Your task to perform on an android device: turn off improve location accuracy Image 0: 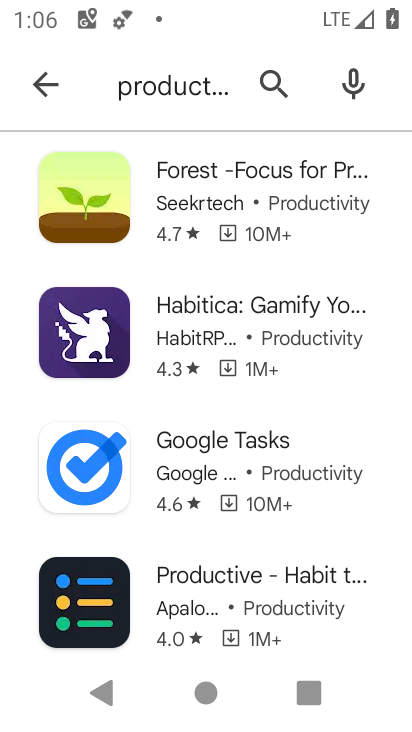
Step 0: press home button
Your task to perform on an android device: turn off improve location accuracy Image 1: 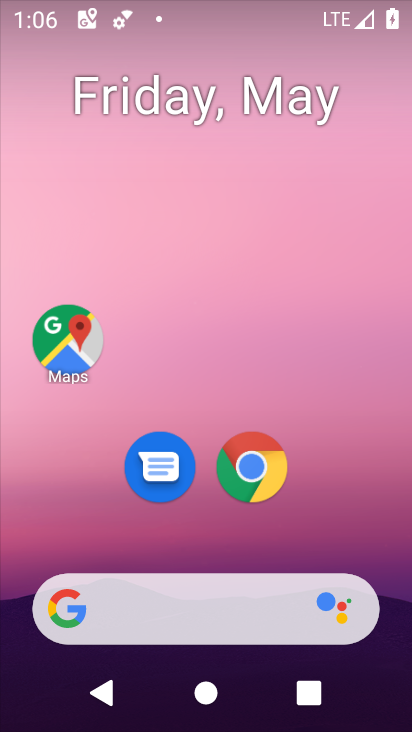
Step 1: drag from (334, 414) to (298, 97)
Your task to perform on an android device: turn off improve location accuracy Image 2: 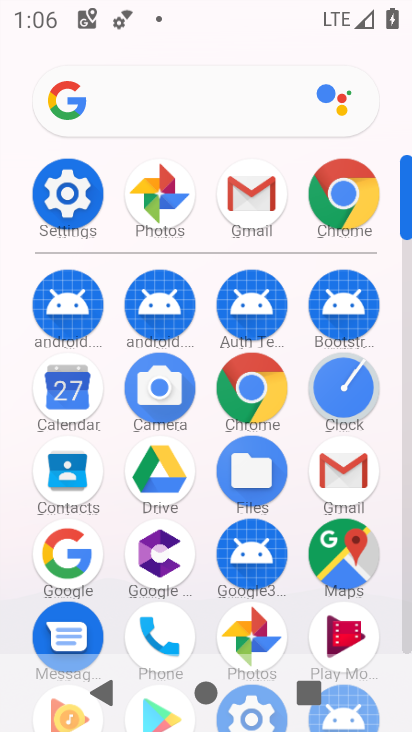
Step 2: click (74, 200)
Your task to perform on an android device: turn off improve location accuracy Image 3: 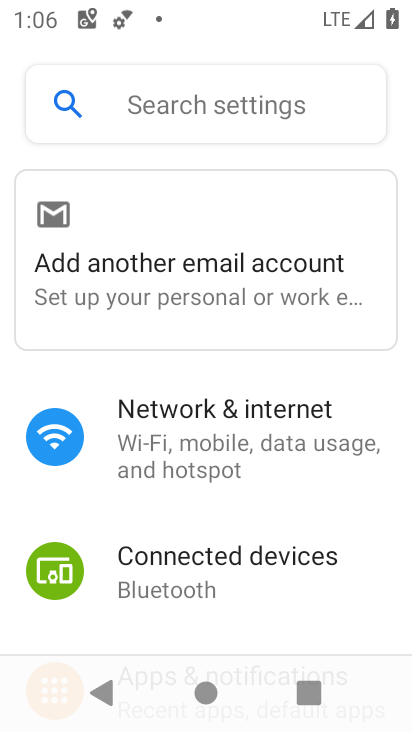
Step 3: drag from (230, 578) to (294, 156)
Your task to perform on an android device: turn off improve location accuracy Image 4: 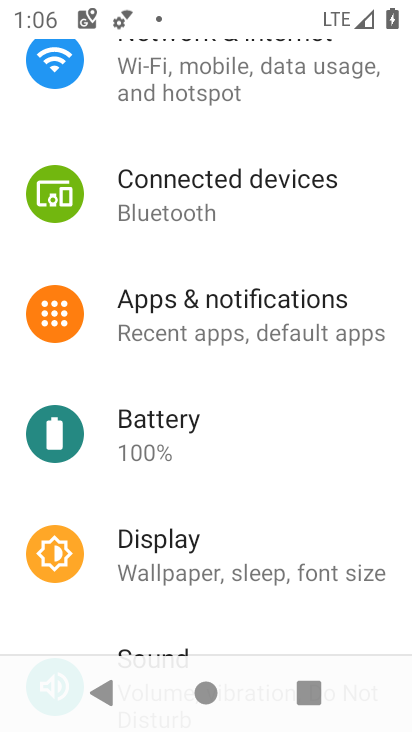
Step 4: drag from (256, 548) to (289, 126)
Your task to perform on an android device: turn off improve location accuracy Image 5: 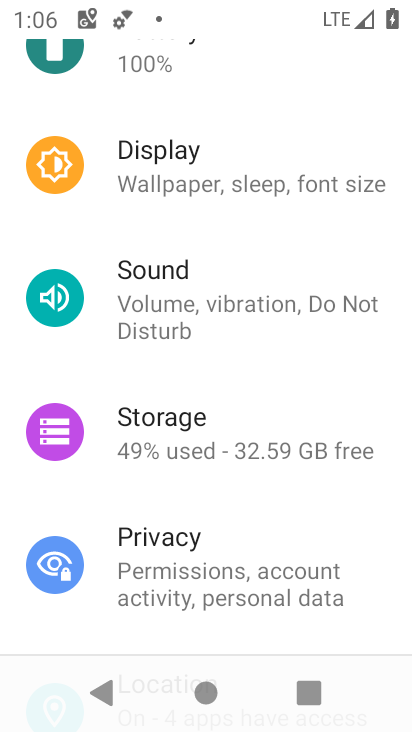
Step 5: drag from (228, 510) to (244, 110)
Your task to perform on an android device: turn off improve location accuracy Image 6: 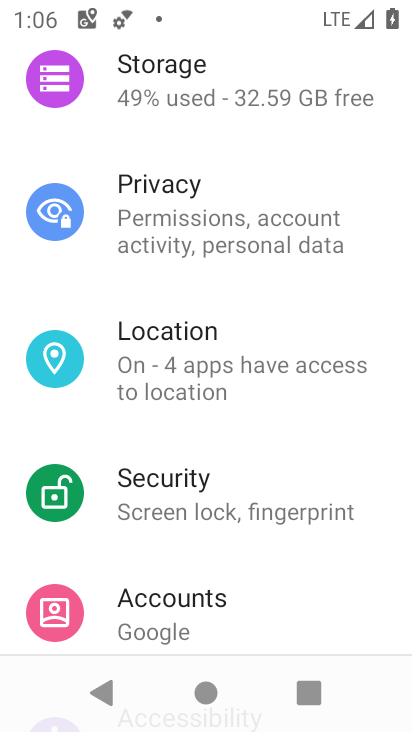
Step 6: click (186, 379)
Your task to perform on an android device: turn off improve location accuracy Image 7: 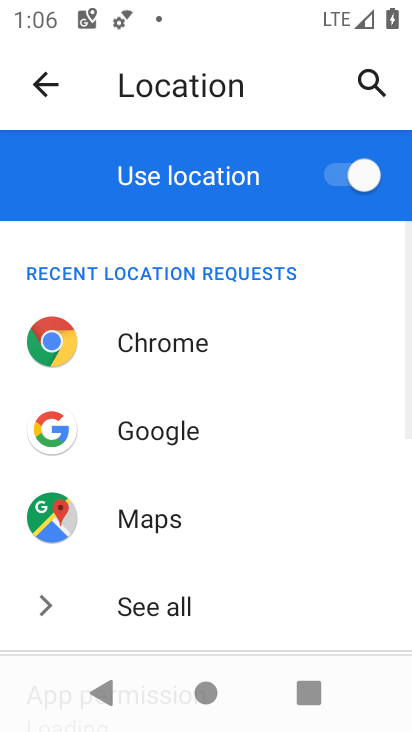
Step 7: drag from (217, 534) to (229, 230)
Your task to perform on an android device: turn off improve location accuracy Image 8: 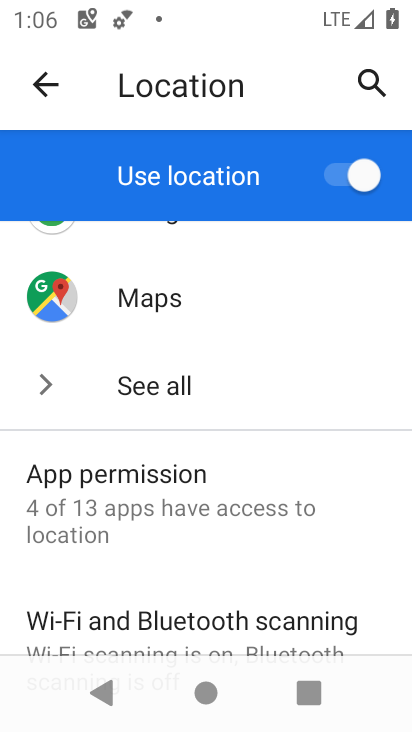
Step 8: drag from (243, 611) to (300, 195)
Your task to perform on an android device: turn off improve location accuracy Image 9: 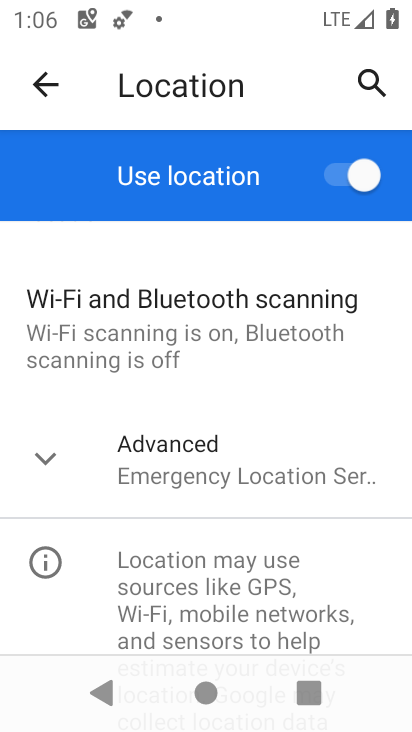
Step 9: drag from (256, 512) to (280, 200)
Your task to perform on an android device: turn off improve location accuracy Image 10: 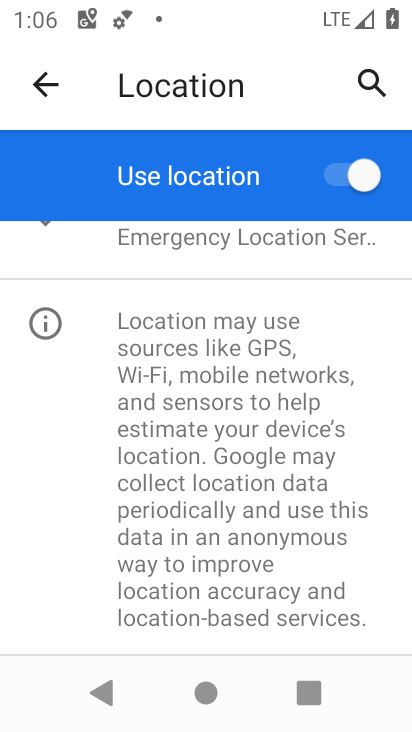
Step 10: drag from (223, 329) to (235, 597)
Your task to perform on an android device: turn off improve location accuracy Image 11: 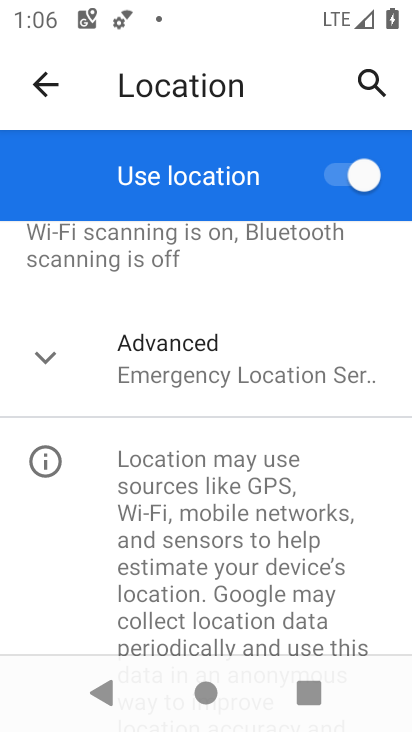
Step 11: click (190, 383)
Your task to perform on an android device: turn off improve location accuracy Image 12: 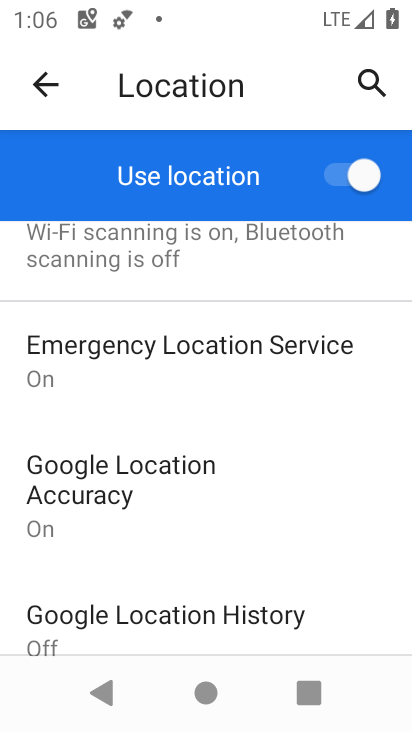
Step 12: click (80, 487)
Your task to perform on an android device: turn off improve location accuracy Image 13: 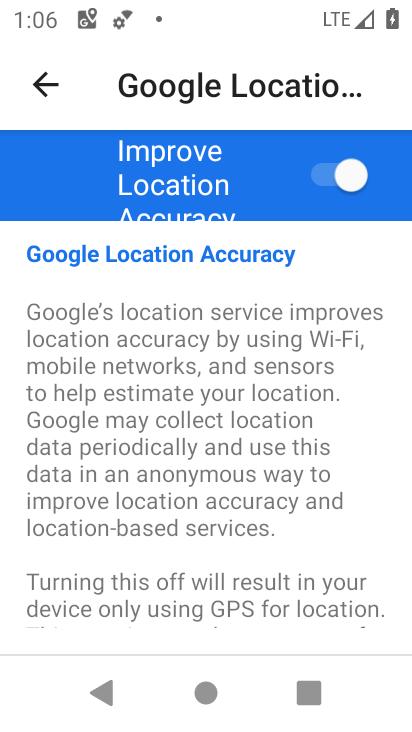
Step 13: click (330, 182)
Your task to perform on an android device: turn off improve location accuracy Image 14: 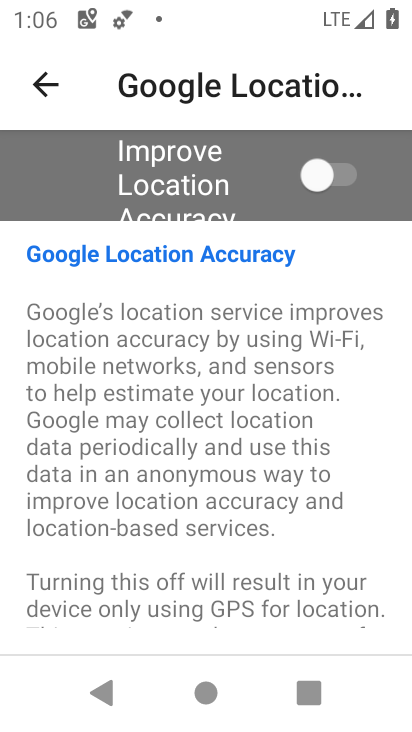
Step 14: task complete